Your task to perform on an android device: Open Google Chrome and click the shortcut for Amazon.com Image 0: 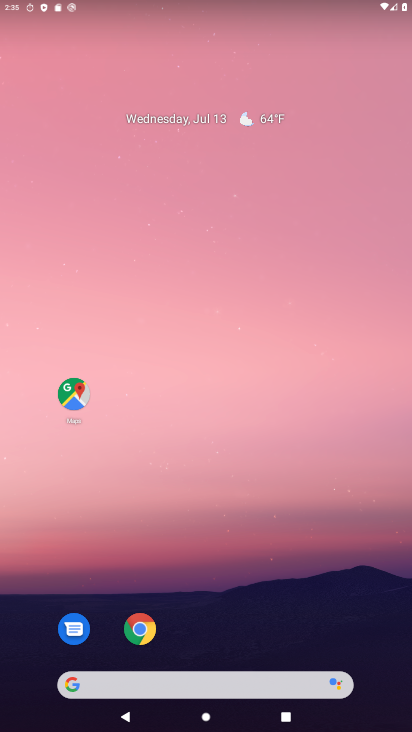
Step 0: drag from (310, 683) to (302, 31)
Your task to perform on an android device: Open Google Chrome and click the shortcut for Amazon.com Image 1: 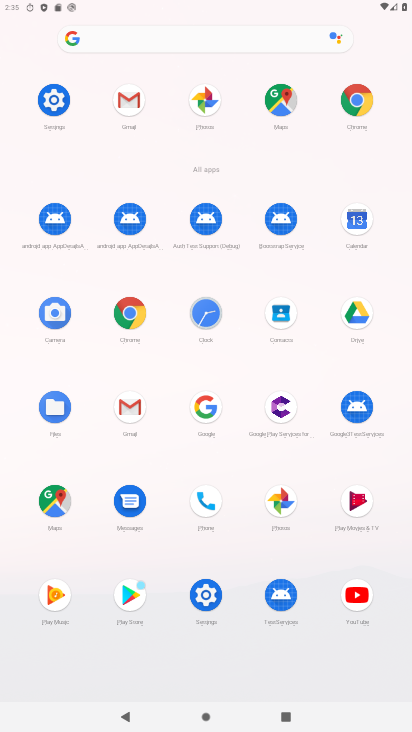
Step 1: click (122, 310)
Your task to perform on an android device: Open Google Chrome and click the shortcut for Amazon.com Image 2: 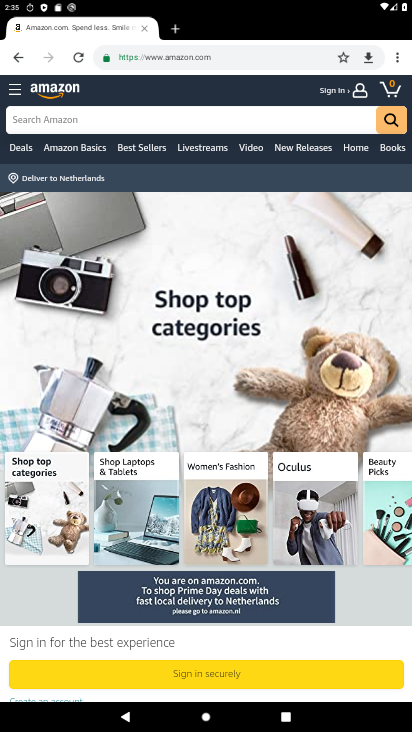
Step 2: drag from (396, 57) to (290, 330)
Your task to perform on an android device: Open Google Chrome and click the shortcut for Amazon.com Image 3: 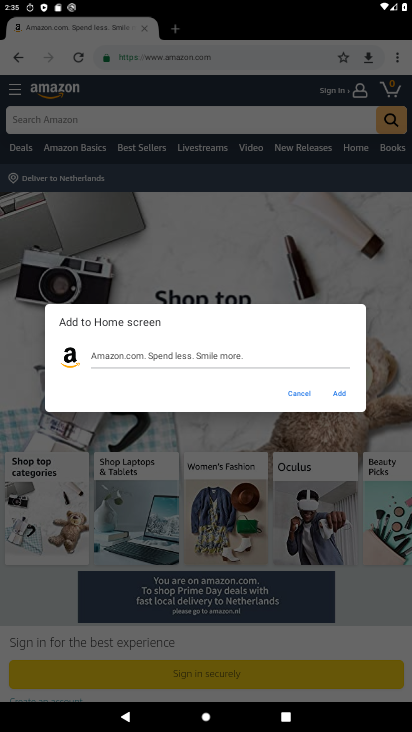
Step 3: click (339, 389)
Your task to perform on an android device: Open Google Chrome and click the shortcut for Amazon.com Image 4: 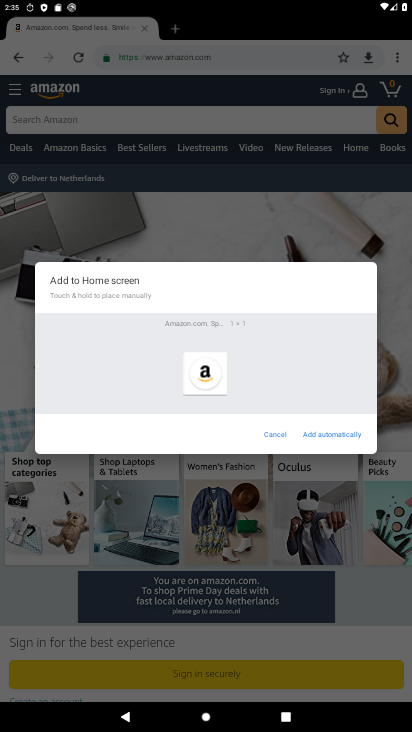
Step 4: click (330, 427)
Your task to perform on an android device: Open Google Chrome and click the shortcut for Amazon.com Image 5: 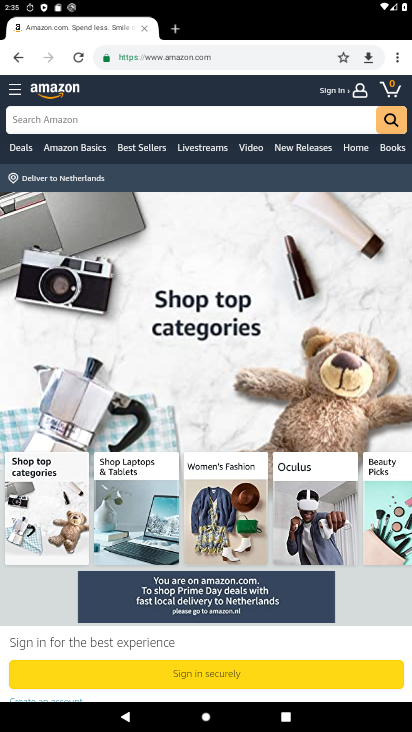
Step 5: task complete